Your task to perform on an android device: What's on my calendar tomorrow? Image 0: 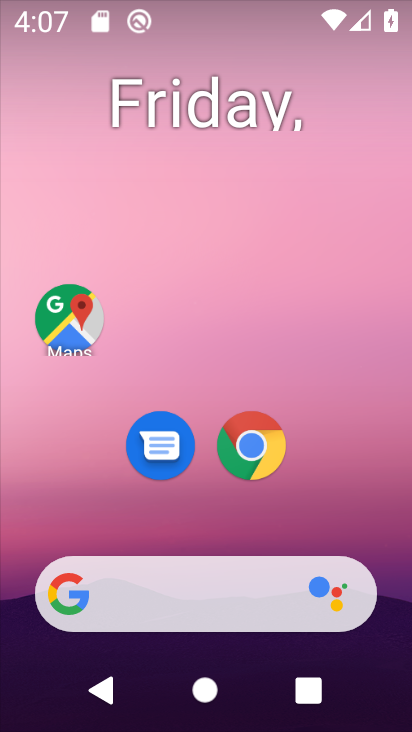
Step 0: drag from (346, 458) to (330, 0)
Your task to perform on an android device: What's on my calendar tomorrow? Image 1: 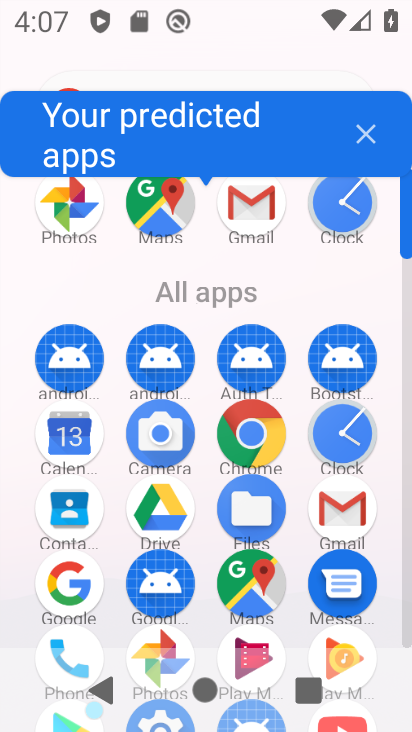
Step 1: drag from (266, 596) to (274, 290)
Your task to perform on an android device: What's on my calendar tomorrow? Image 2: 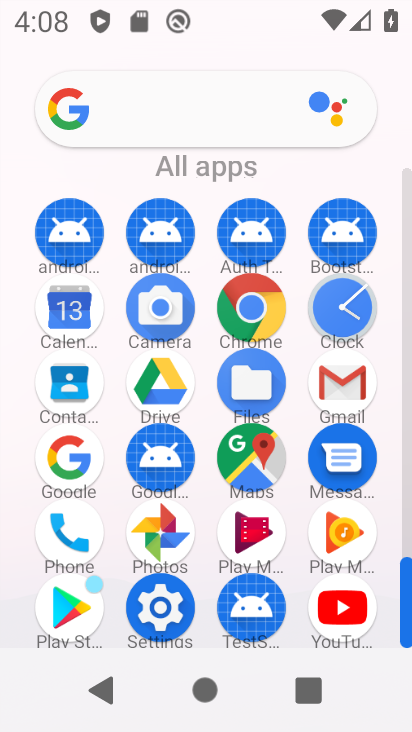
Step 2: click (77, 304)
Your task to perform on an android device: What's on my calendar tomorrow? Image 3: 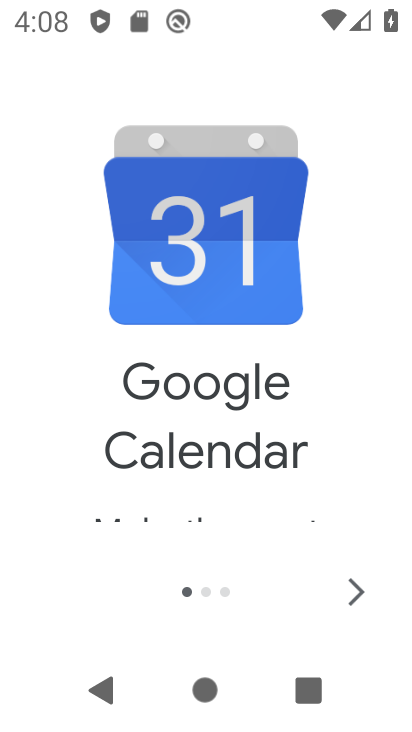
Step 3: click (343, 593)
Your task to perform on an android device: What's on my calendar tomorrow? Image 4: 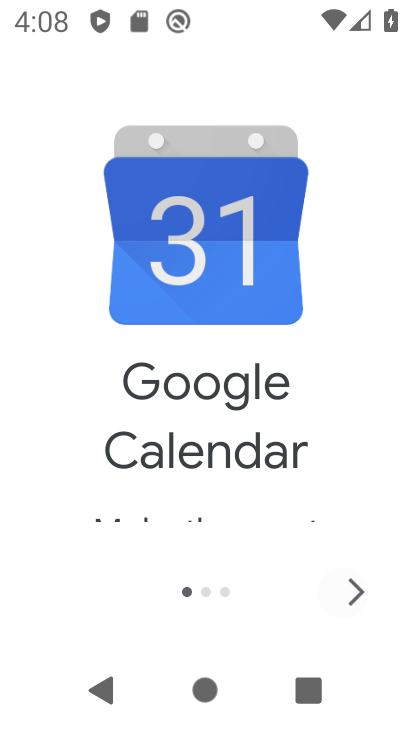
Step 4: click (341, 591)
Your task to perform on an android device: What's on my calendar tomorrow? Image 5: 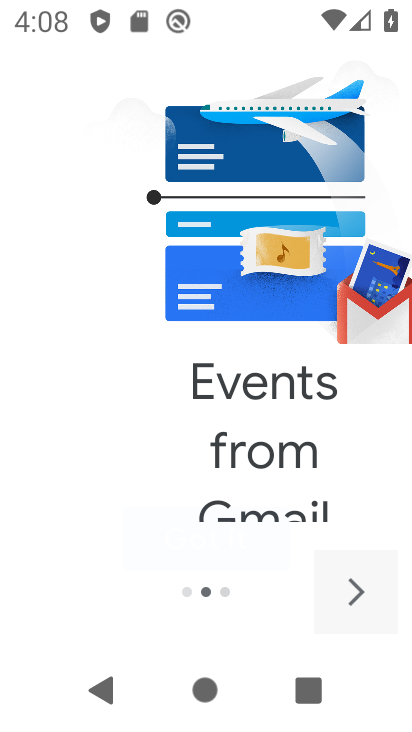
Step 5: click (337, 590)
Your task to perform on an android device: What's on my calendar tomorrow? Image 6: 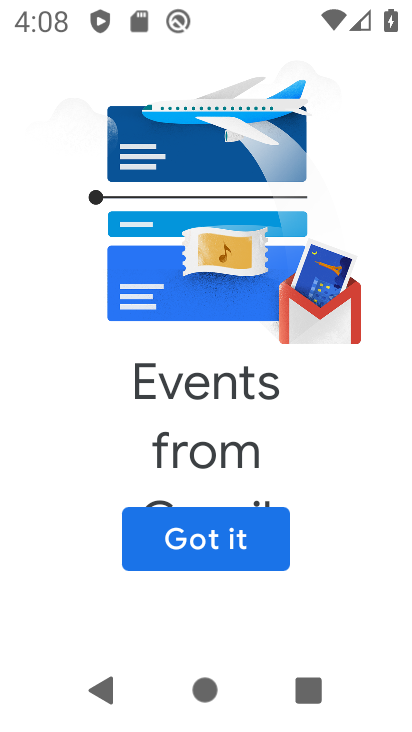
Step 6: click (336, 589)
Your task to perform on an android device: What's on my calendar tomorrow? Image 7: 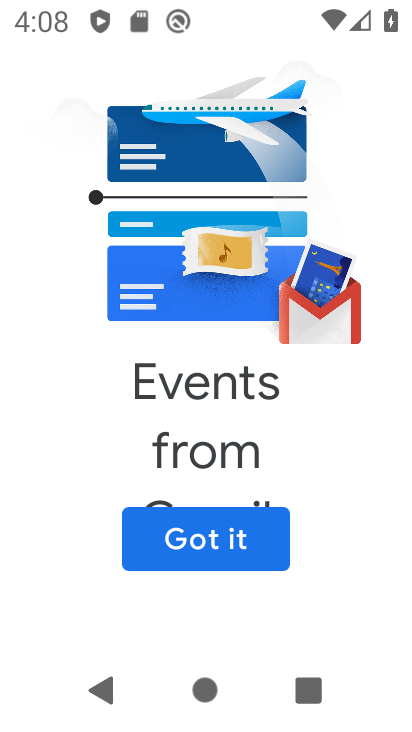
Step 7: click (237, 542)
Your task to perform on an android device: What's on my calendar tomorrow? Image 8: 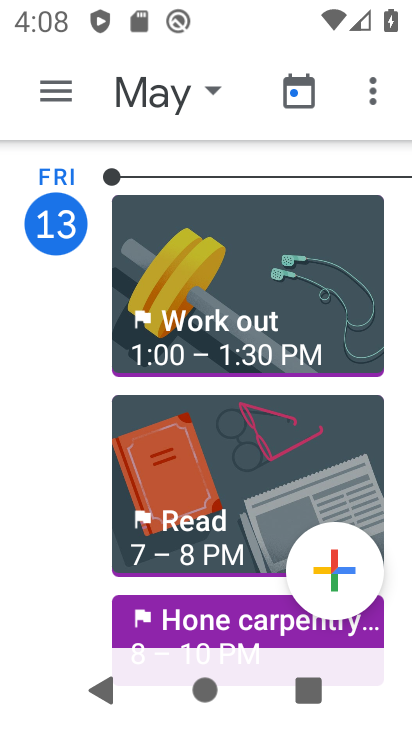
Step 8: click (64, 89)
Your task to perform on an android device: What's on my calendar tomorrow? Image 9: 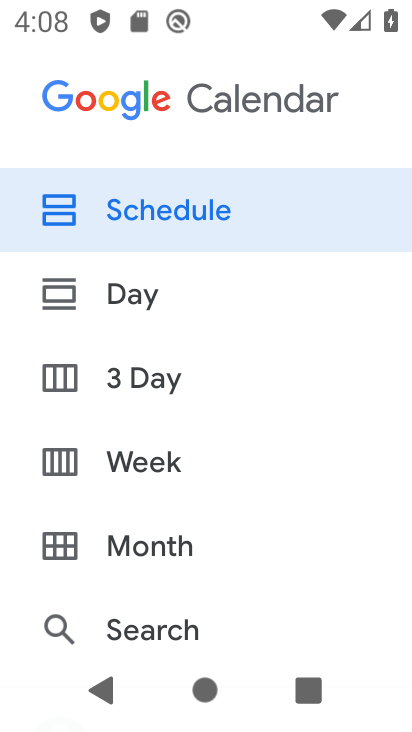
Step 9: click (127, 369)
Your task to perform on an android device: What's on my calendar tomorrow? Image 10: 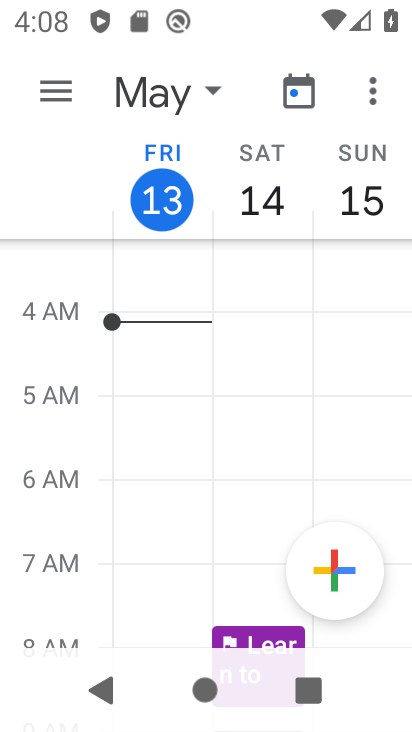
Step 10: drag from (332, 359) to (354, 50)
Your task to perform on an android device: What's on my calendar tomorrow? Image 11: 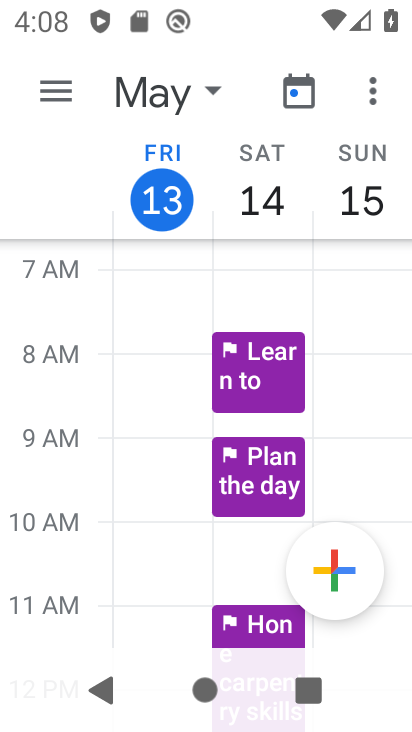
Step 11: click (260, 174)
Your task to perform on an android device: What's on my calendar tomorrow? Image 12: 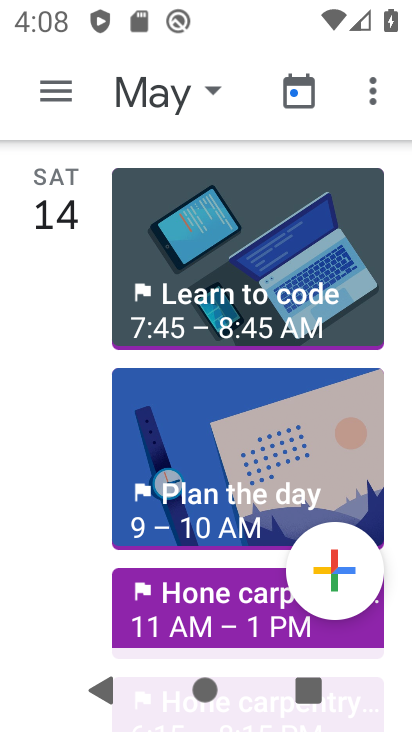
Step 12: task complete